Your task to perform on an android device: What's the news about the US dollar exchange rate? Image 0: 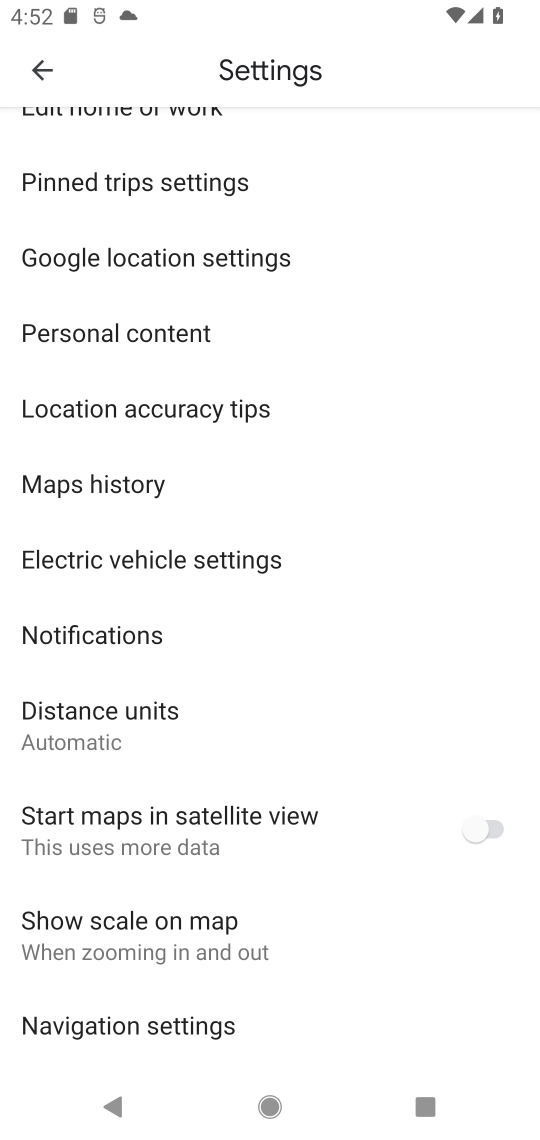
Step 0: press home button
Your task to perform on an android device: What's the news about the US dollar exchange rate? Image 1: 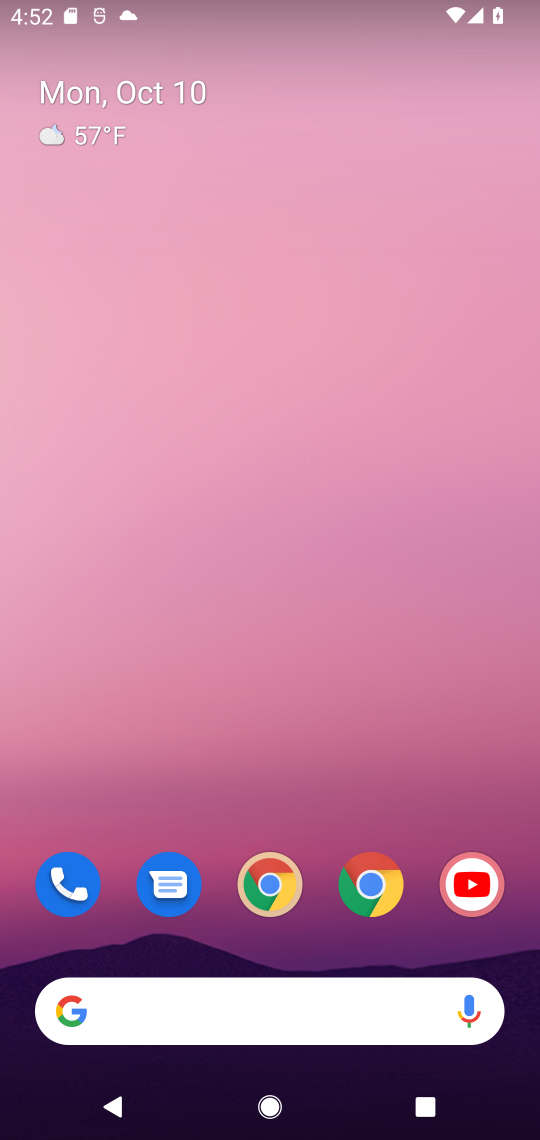
Step 1: click (374, 891)
Your task to perform on an android device: What's the news about the US dollar exchange rate? Image 2: 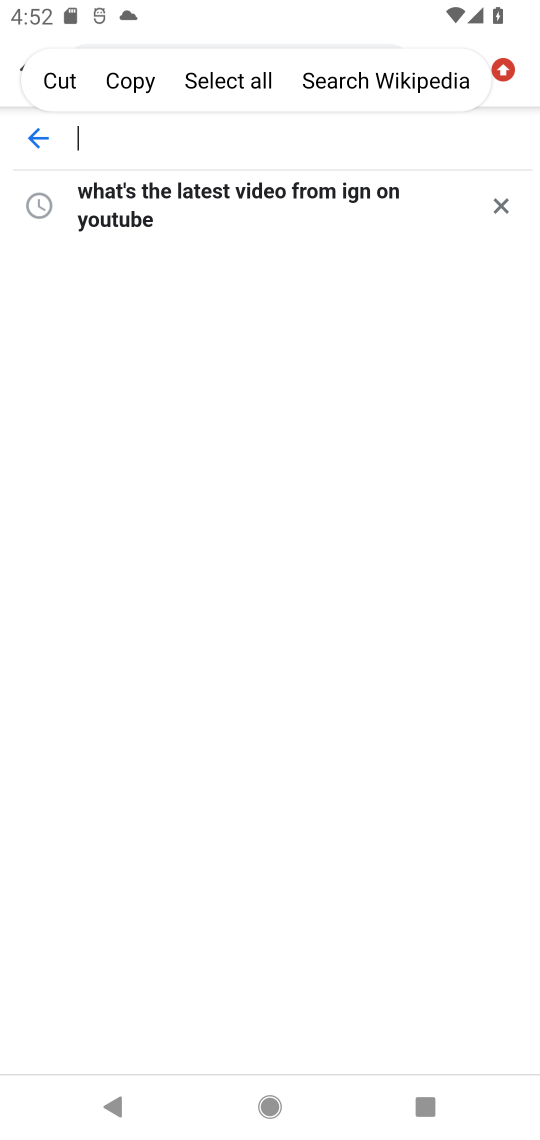
Step 2: click (414, 153)
Your task to perform on an android device: What's the news about the US dollar exchange rate? Image 3: 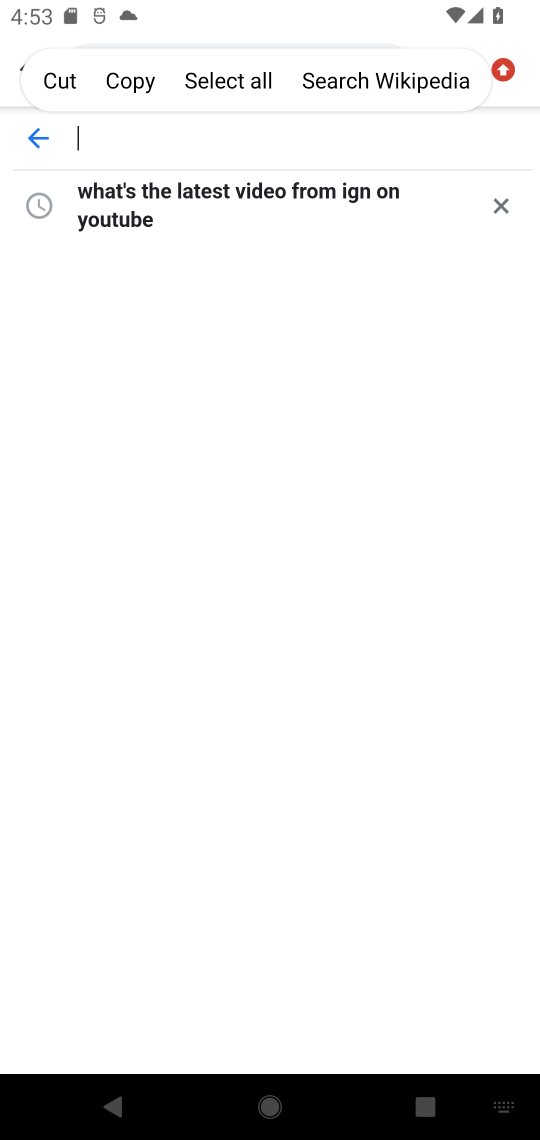
Step 3: type "What's the news about the US dollar exchange rate?"
Your task to perform on an android device: What's the news about the US dollar exchange rate? Image 4: 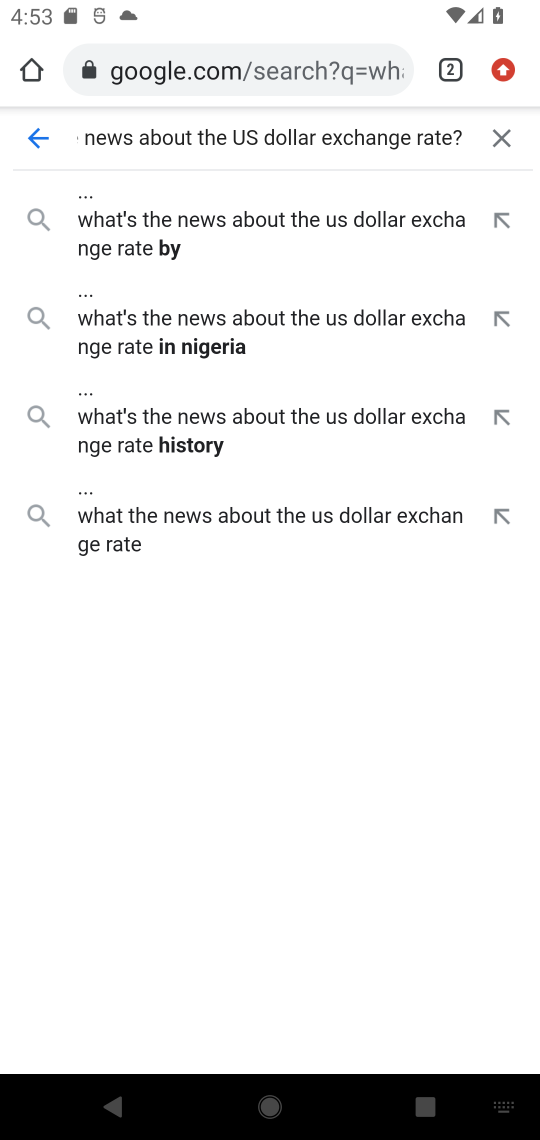
Step 4: click (170, 526)
Your task to perform on an android device: What's the news about the US dollar exchange rate? Image 5: 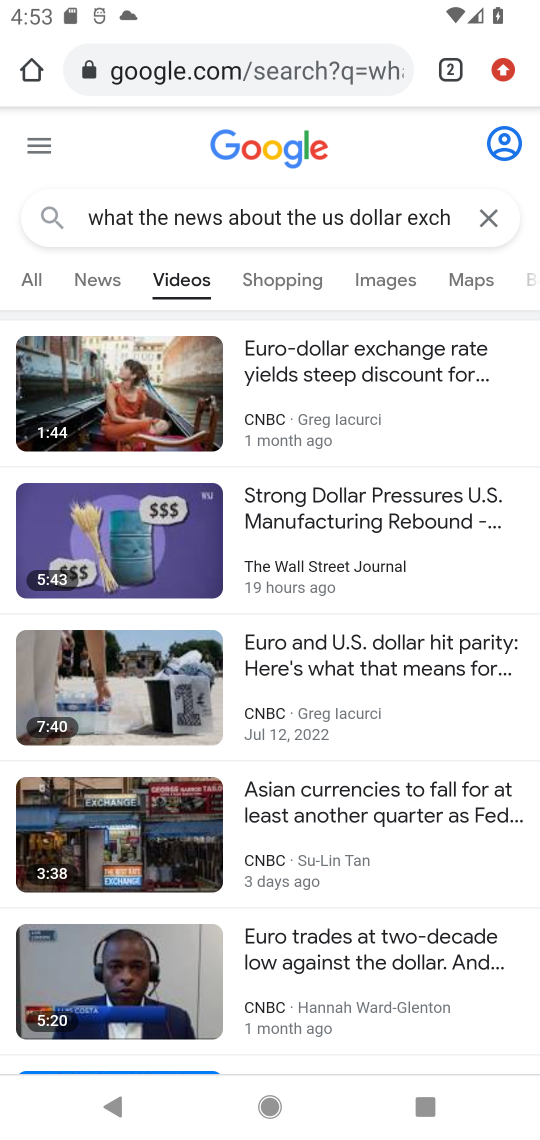
Step 5: click (103, 283)
Your task to perform on an android device: What's the news about the US dollar exchange rate? Image 6: 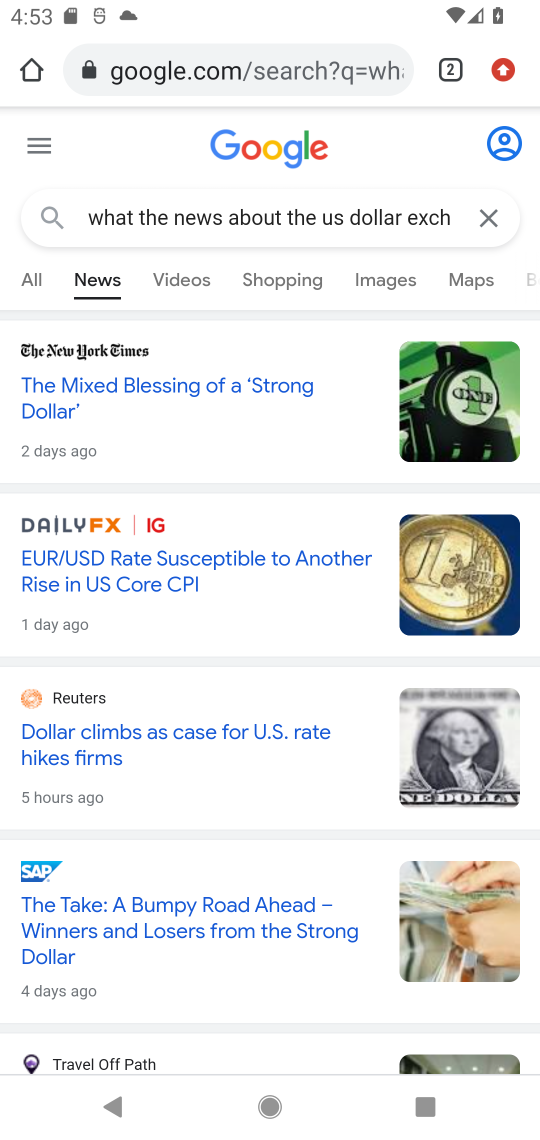
Step 6: click (160, 399)
Your task to perform on an android device: What's the news about the US dollar exchange rate? Image 7: 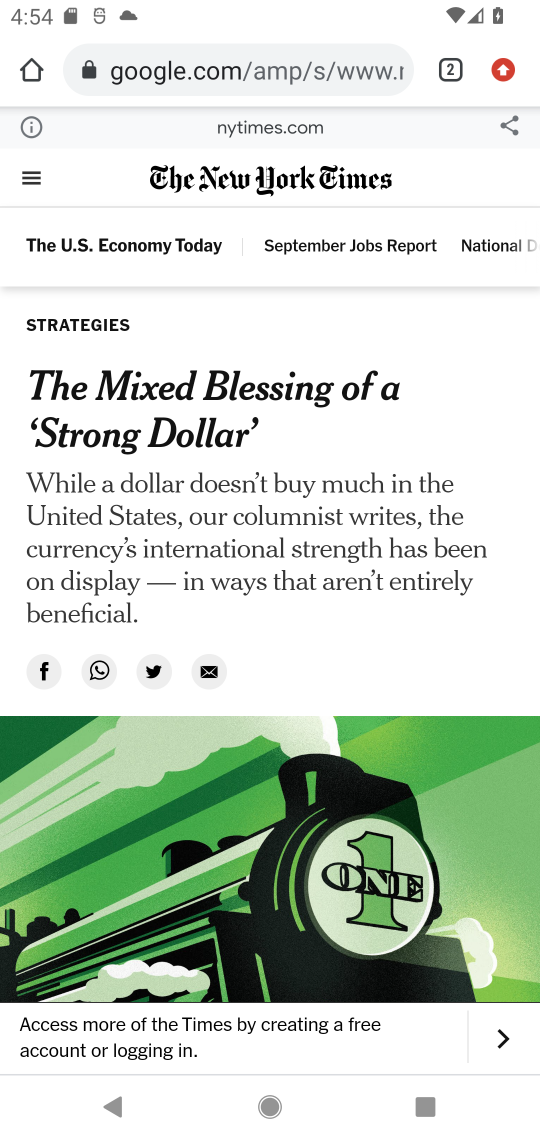
Step 7: task complete